Your task to perform on an android device: Open Youtube and go to "Your channel" Image 0: 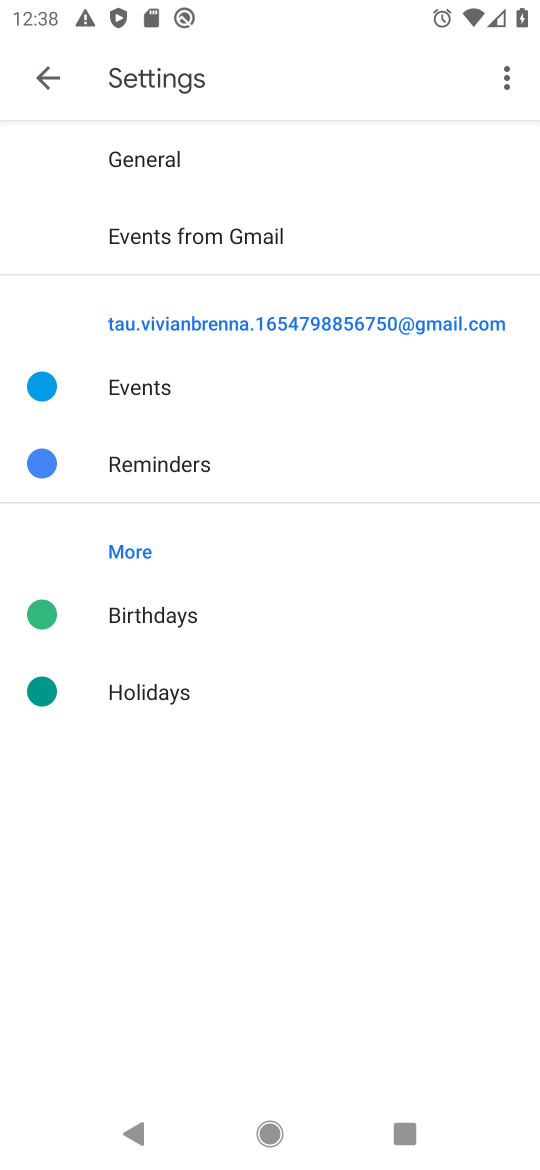
Step 0: press home button
Your task to perform on an android device: Open Youtube and go to "Your channel" Image 1: 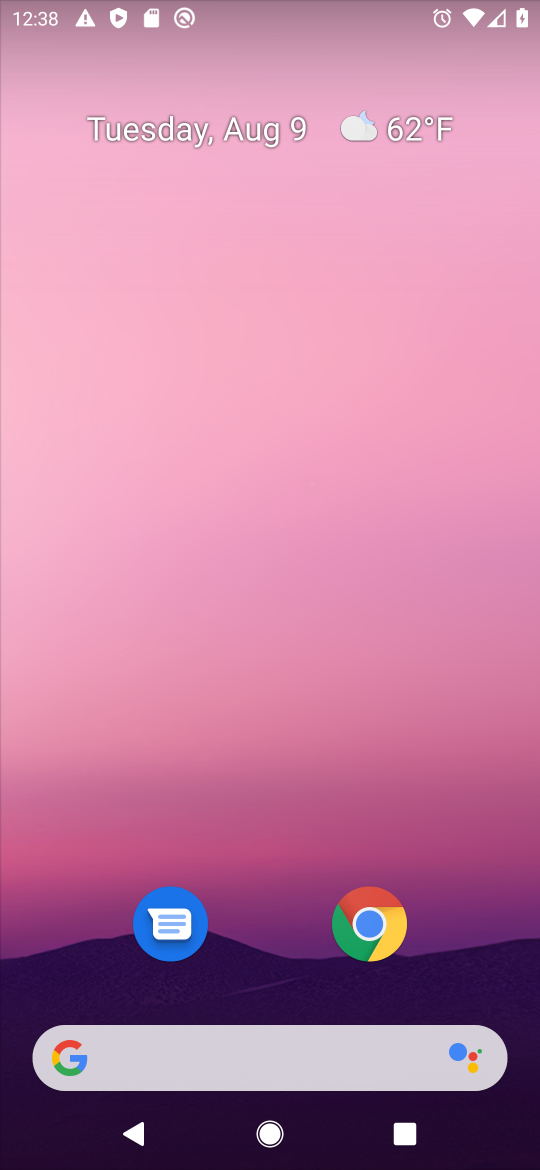
Step 1: drag from (297, 1020) to (336, 26)
Your task to perform on an android device: Open Youtube and go to "Your channel" Image 2: 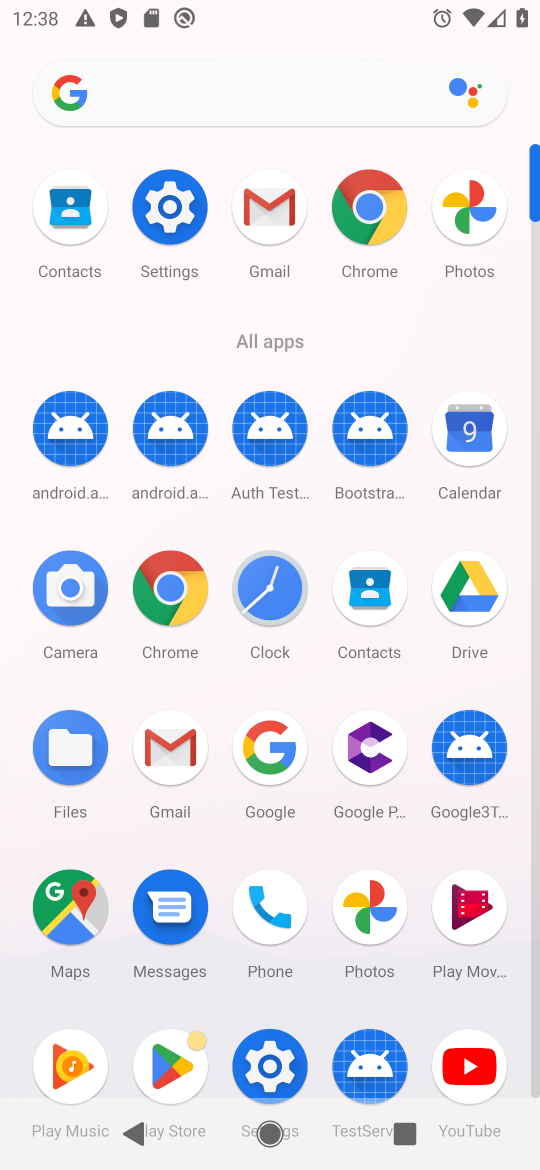
Step 2: click (491, 1058)
Your task to perform on an android device: Open Youtube and go to "Your channel" Image 3: 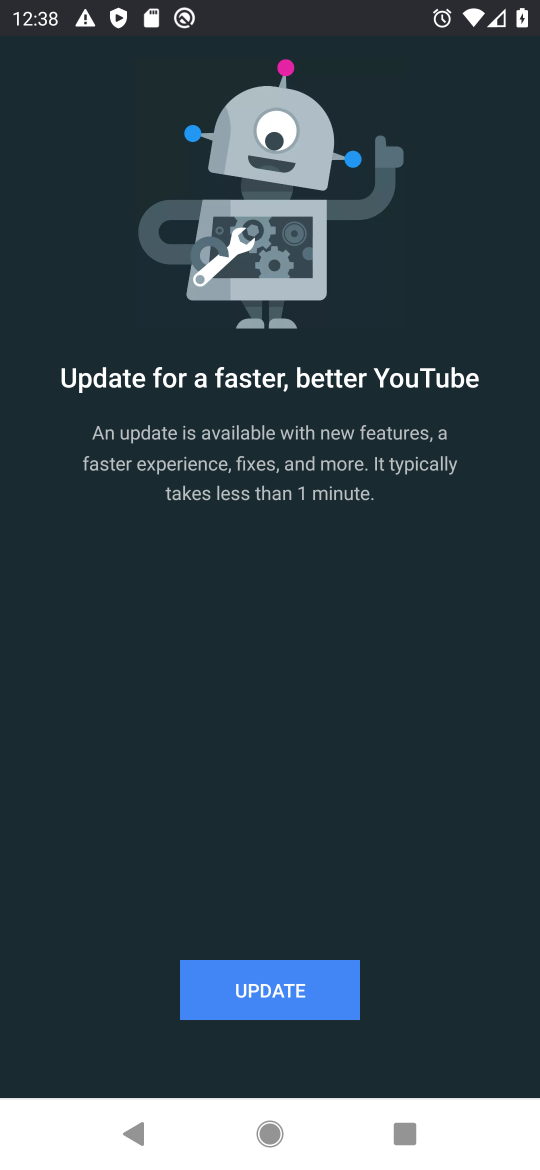
Step 3: click (266, 1016)
Your task to perform on an android device: Open Youtube and go to "Your channel" Image 4: 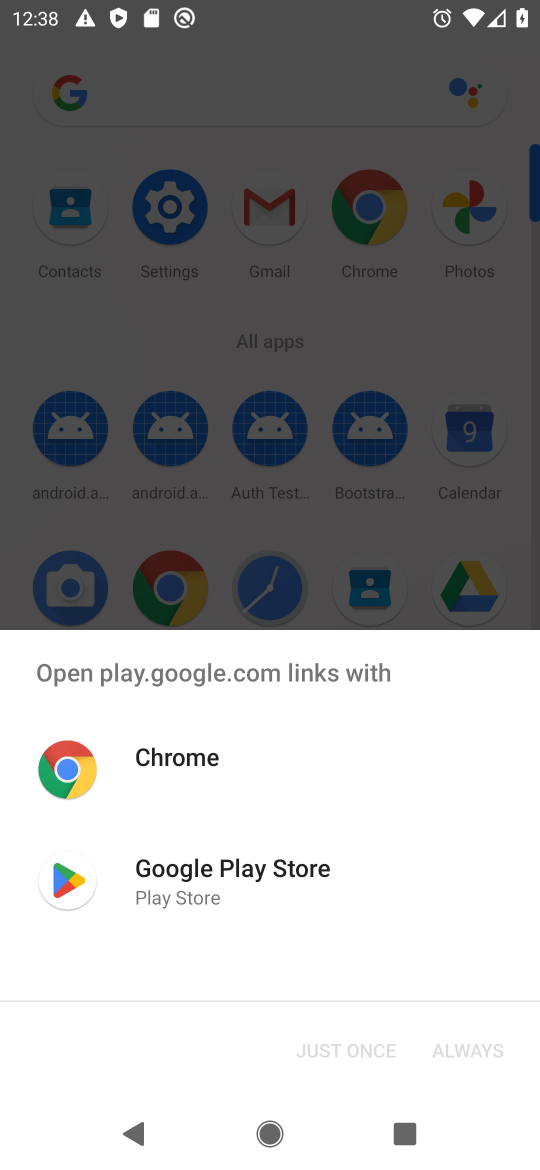
Step 4: click (195, 857)
Your task to perform on an android device: Open Youtube and go to "Your channel" Image 5: 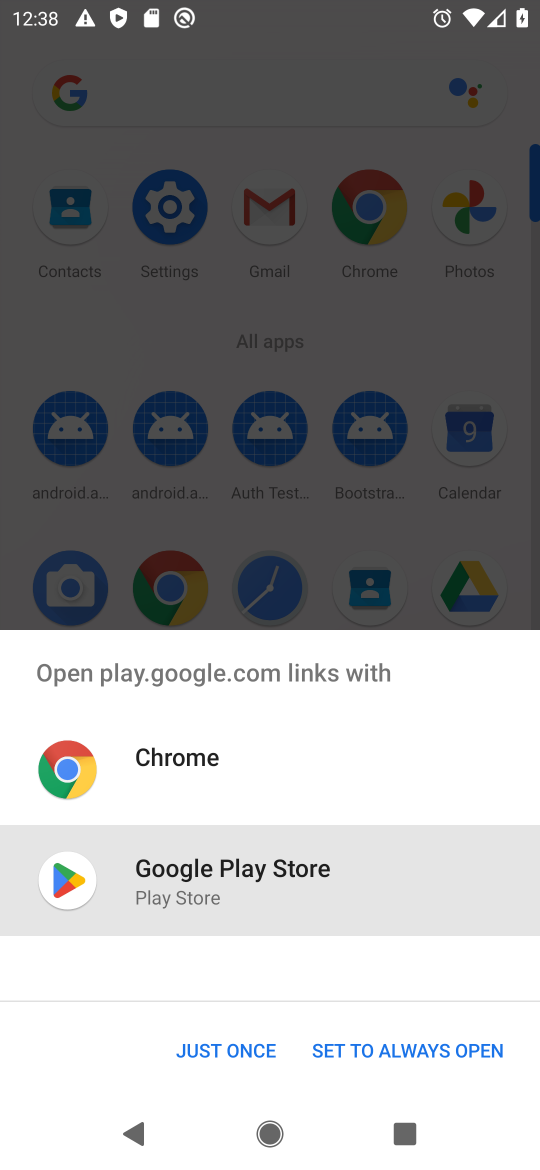
Step 5: click (220, 1035)
Your task to perform on an android device: Open Youtube and go to "Your channel" Image 6: 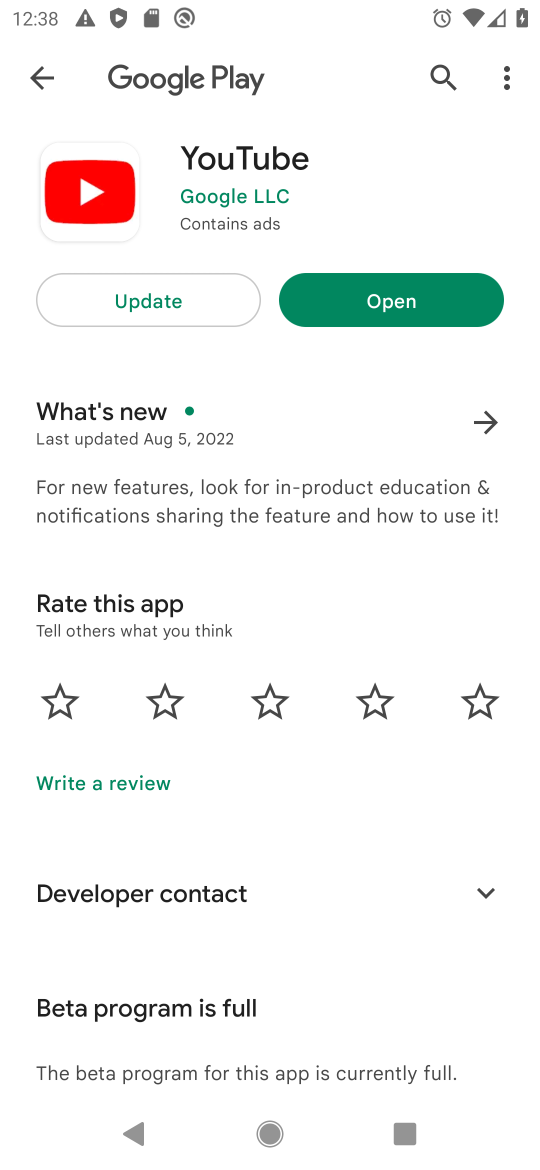
Step 6: click (202, 276)
Your task to perform on an android device: Open Youtube and go to "Your channel" Image 7: 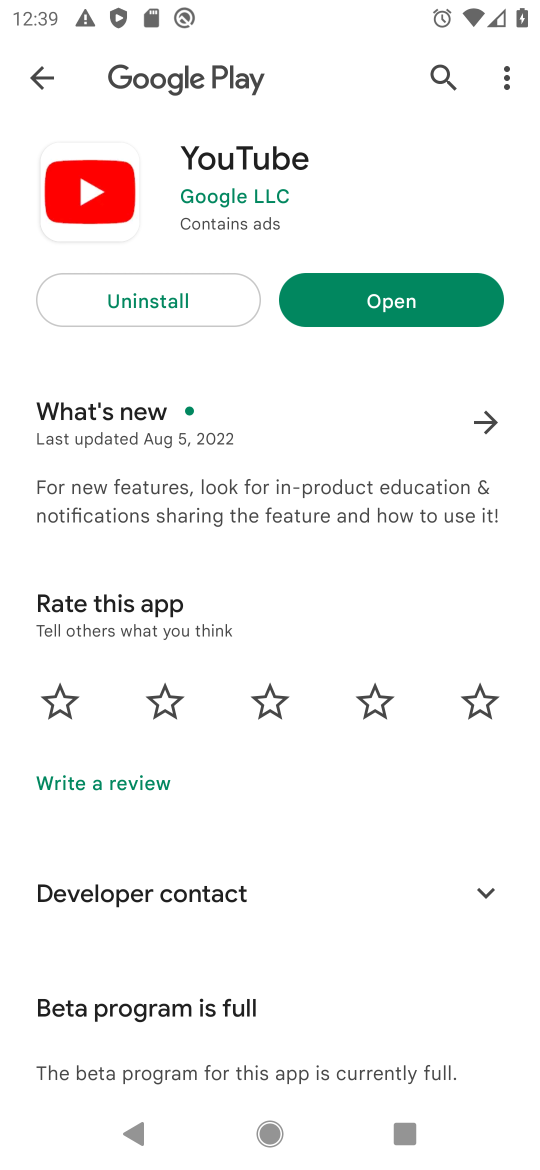
Step 7: click (392, 293)
Your task to perform on an android device: Open Youtube and go to "Your channel" Image 8: 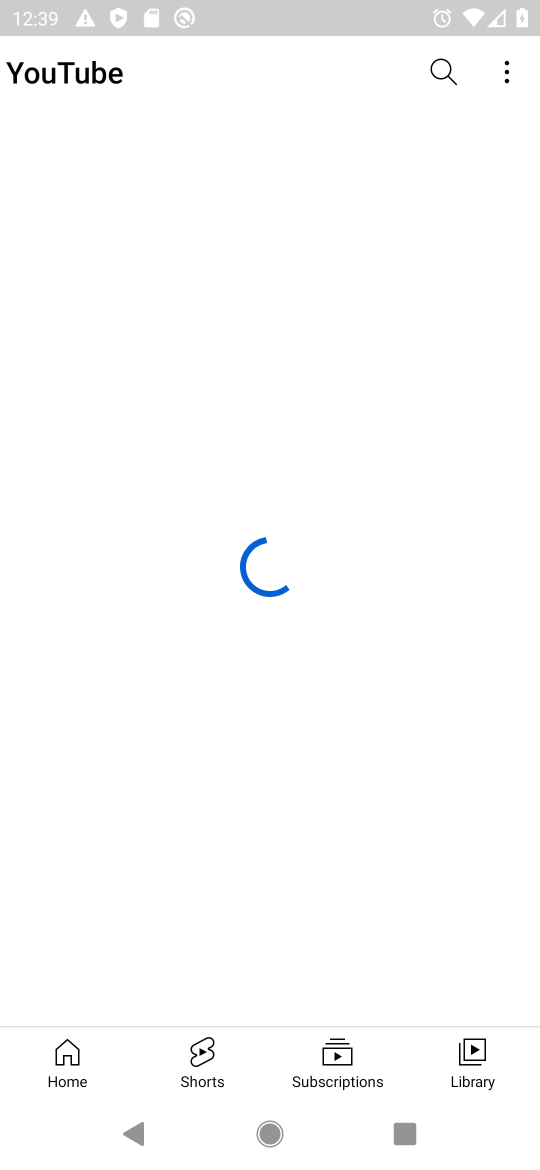
Step 8: click (487, 1058)
Your task to perform on an android device: Open Youtube and go to "Your channel" Image 9: 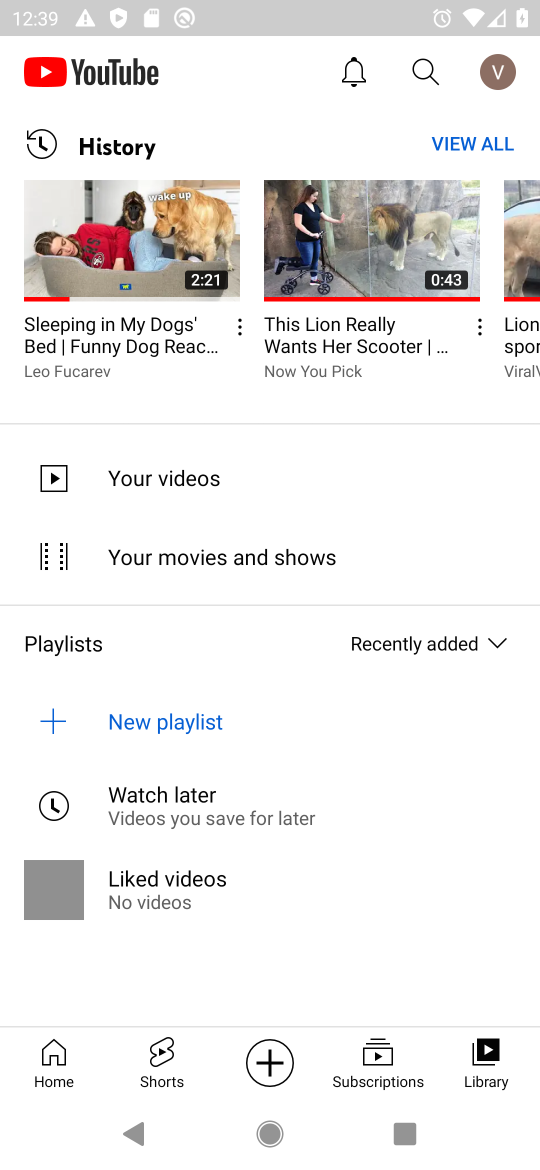
Step 9: click (475, 283)
Your task to perform on an android device: Open Youtube and go to "Your channel" Image 10: 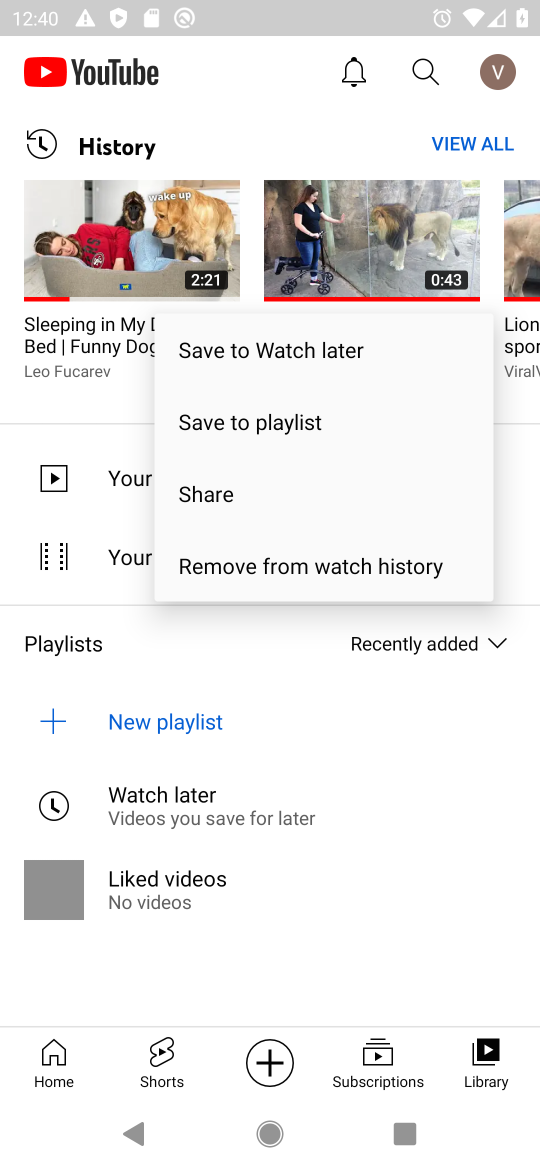
Step 10: task complete